Your task to perform on an android device: toggle improve location accuracy Image 0: 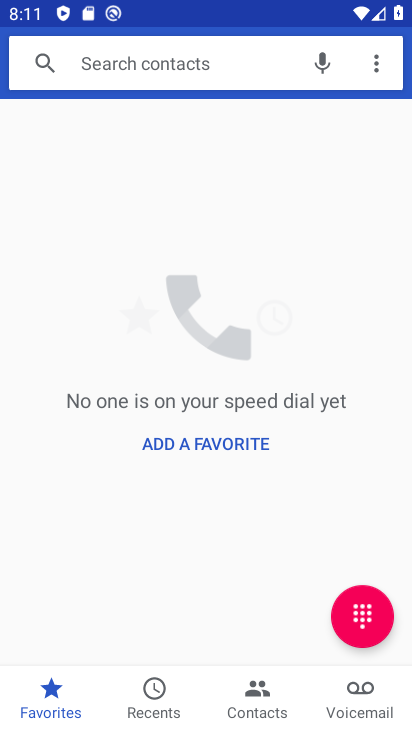
Step 0: press home button
Your task to perform on an android device: toggle improve location accuracy Image 1: 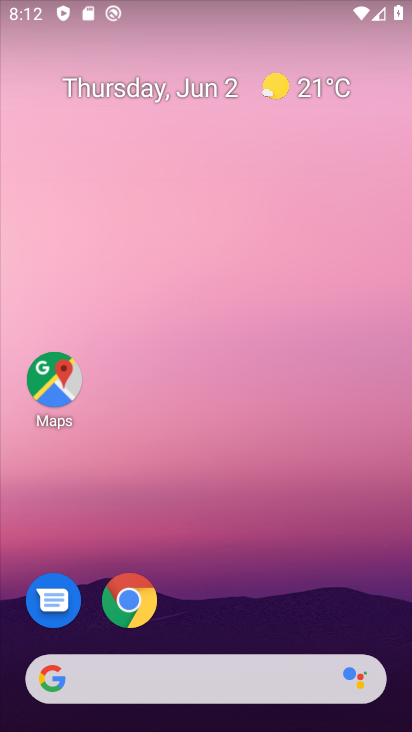
Step 1: drag from (205, 623) to (221, 228)
Your task to perform on an android device: toggle improve location accuracy Image 2: 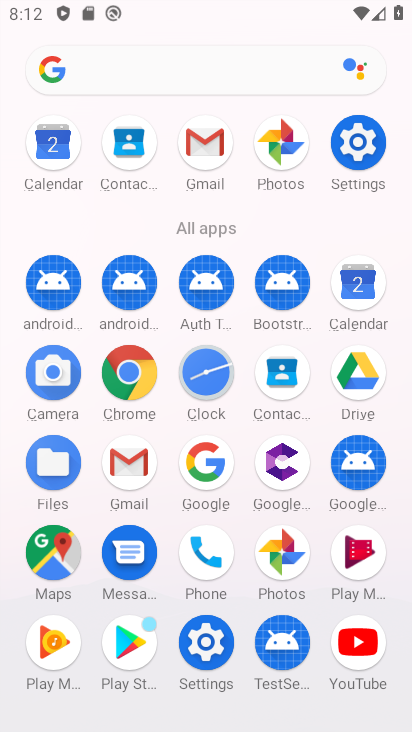
Step 2: click (346, 157)
Your task to perform on an android device: toggle improve location accuracy Image 3: 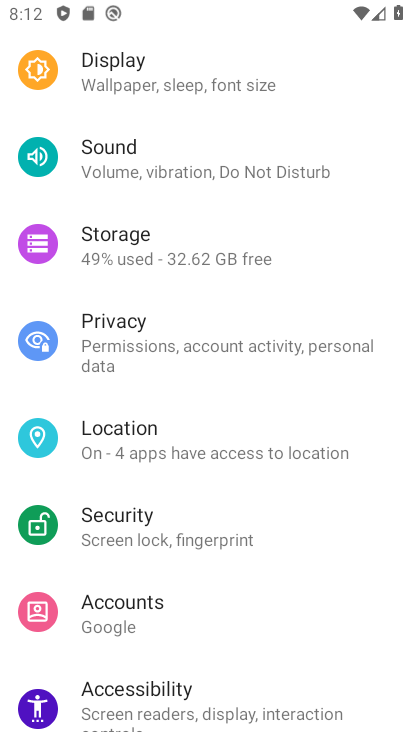
Step 3: click (174, 451)
Your task to perform on an android device: toggle improve location accuracy Image 4: 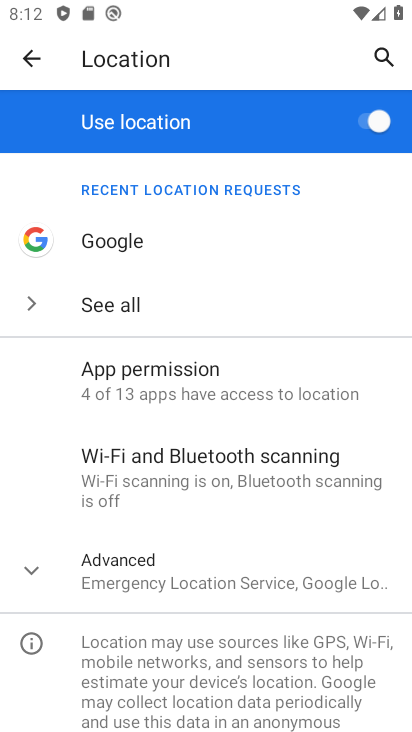
Step 4: click (201, 568)
Your task to perform on an android device: toggle improve location accuracy Image 5: 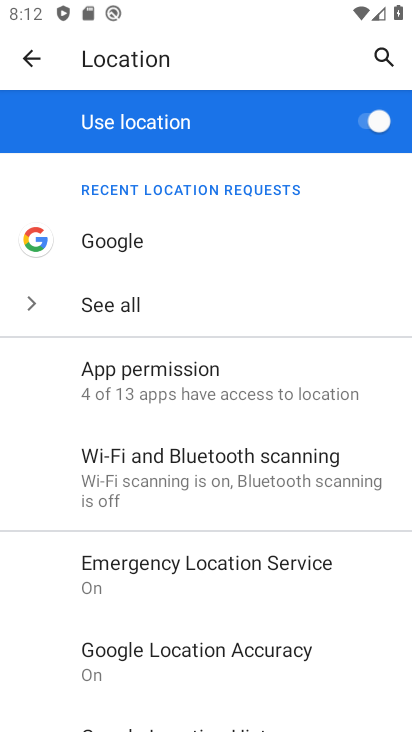
Step 5: click (201, 637)
Your task to perform on an android device: toggle improve location accuracy Image 6: 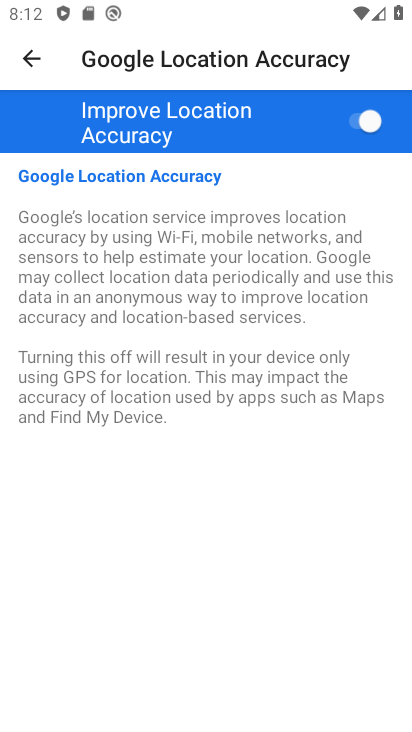
Step 6: click (359, 117)
Your task to perform on an android device: toggle improve location accuracy Image 7: 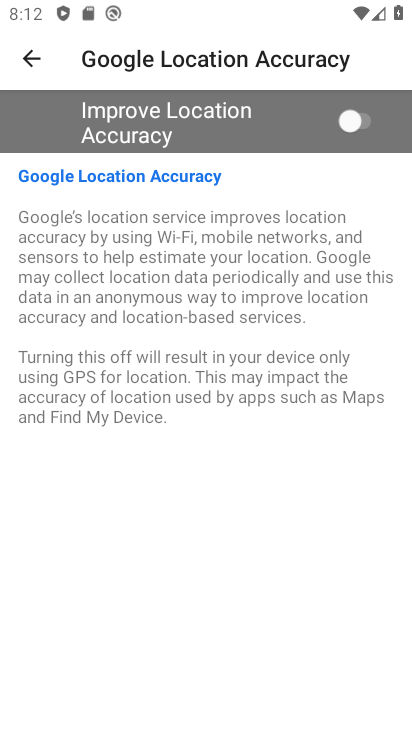
Step 7: task complete